Your task to perform on an android device: Open the Play Movies app and select the watchlist tab. Image 0: 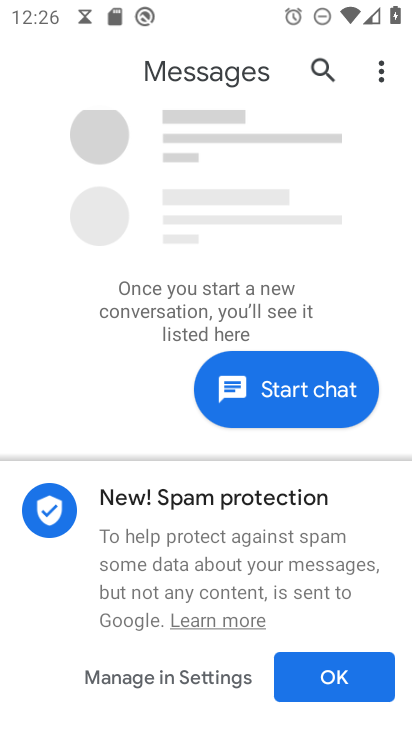
Step 0: press home button
Your task to perform on an android device: Open the Play Movies app and select the watchlist tab. Image 1: 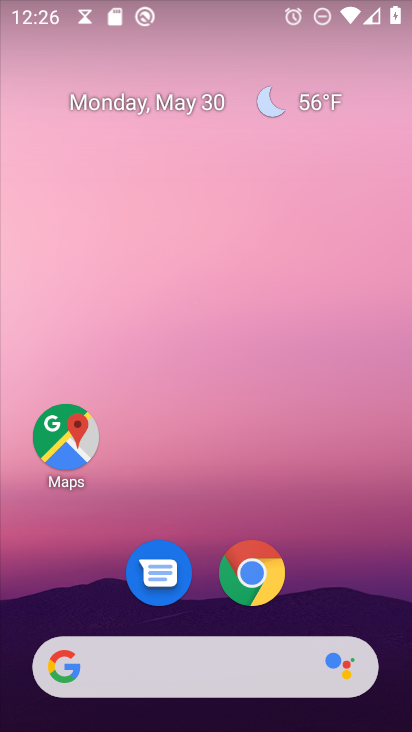
Step 1: drag from (49, 705) to (216, 18)
Your task to perform on an android device: Open the Play Movies app and select the watchlist tab. Image 2: 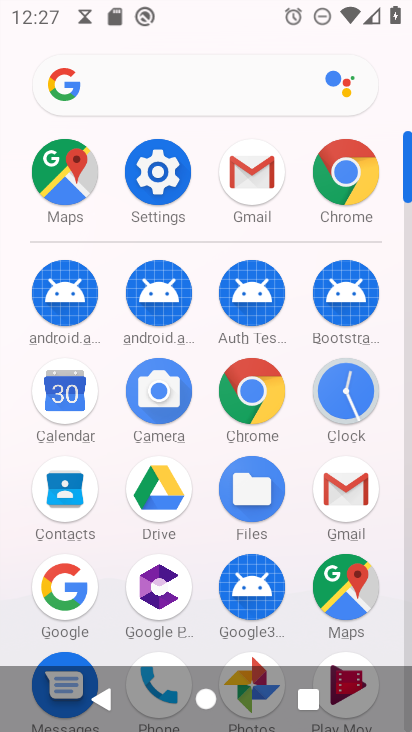
Step 2: drag from (297, 577) to (304, 218)
Your task to perform on an android device: Open the Play Movies app and select the watchlist tab. Image 3: 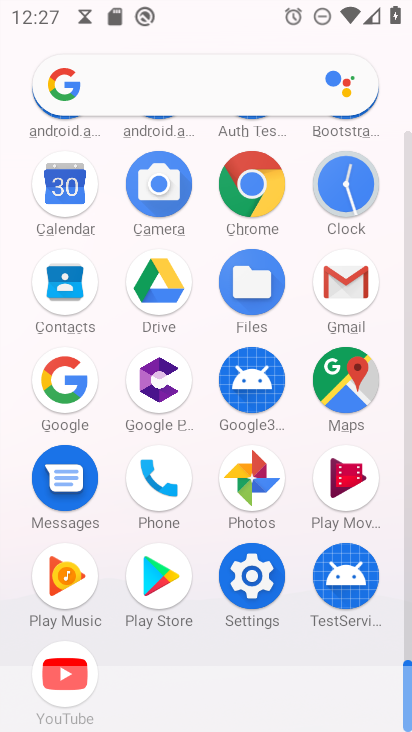
Step 3: click (348, 485)
Your task to perform on an android device: Open the Play Movies app and select the watchlist tab. Image 4: 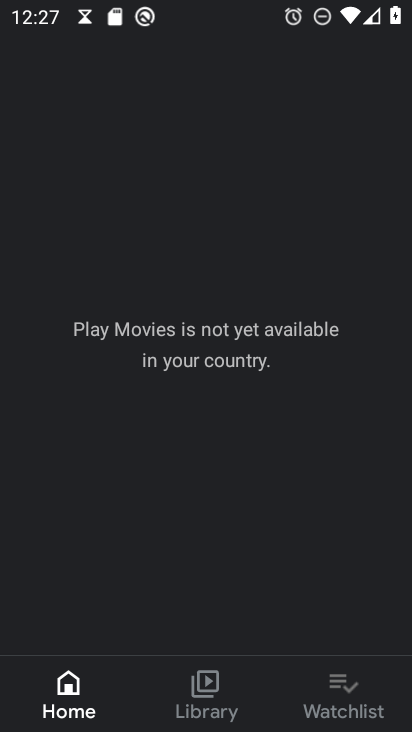
Step 4: click (353, 661)
Your task to perform on an android device: Open the Play Movies app and select the watchlist tab. Image 5: 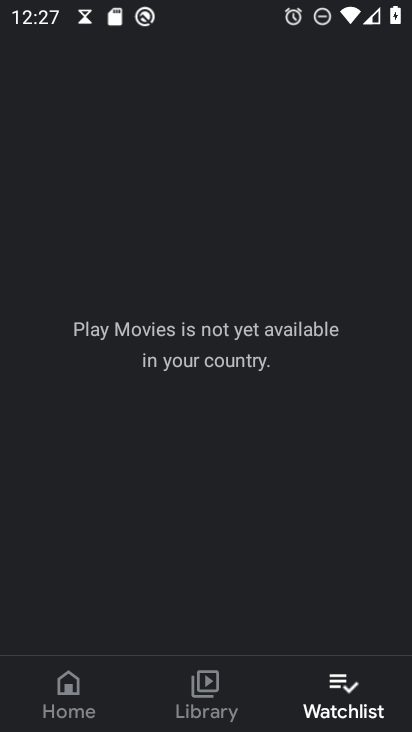
Step 5: task complete